Your task to perform on an android device: Open Amazon Image 0: 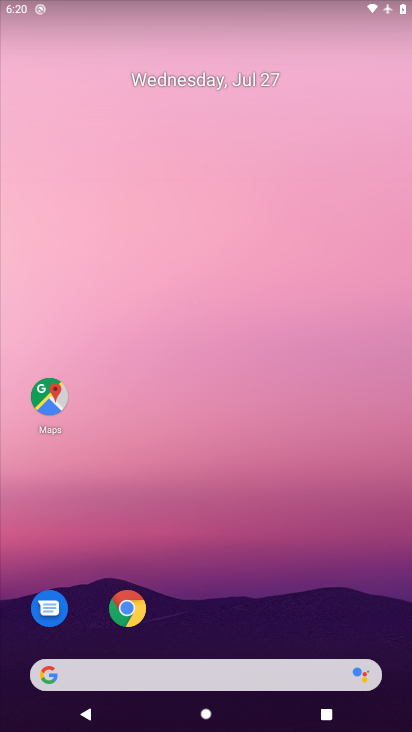
Step 0: press home button
Your task to perform on an android device: Open Amazon Image 1: 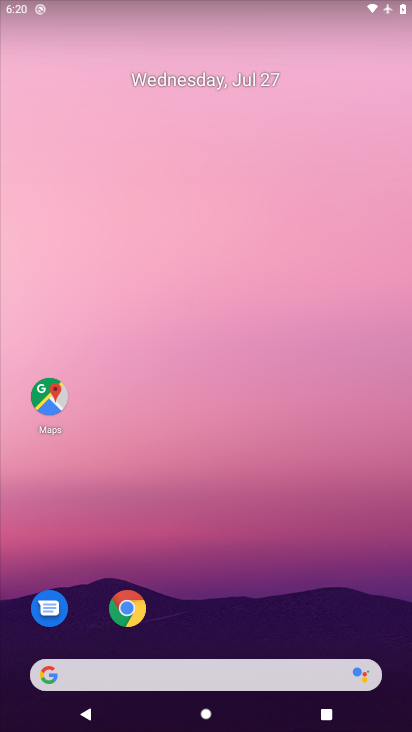
Step 1: click (53, 668)
Your task to perform on an android device: Open Amazon Image 2: 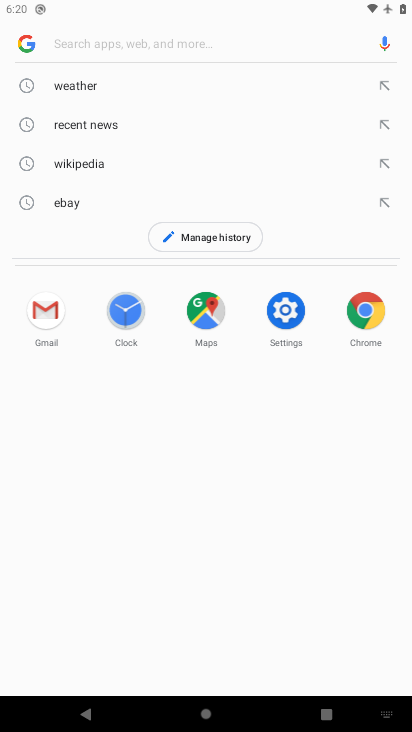
Step 2: press enter
Your task to perform on an android device: Open Amazon Image 3: 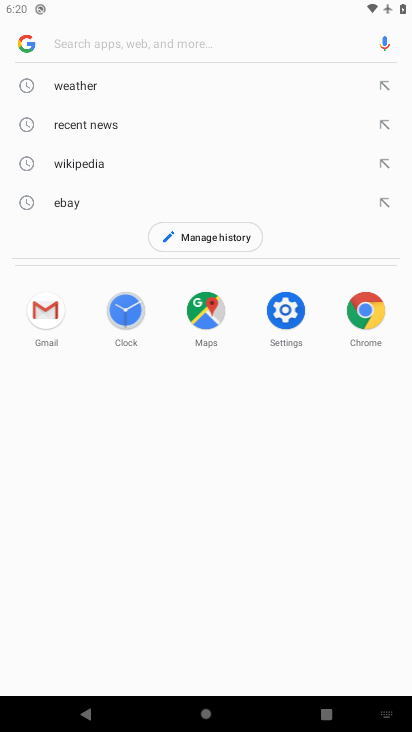
Step 3: type "Amazon"
Your task to perform on an android device: Open Amazon Image 4: 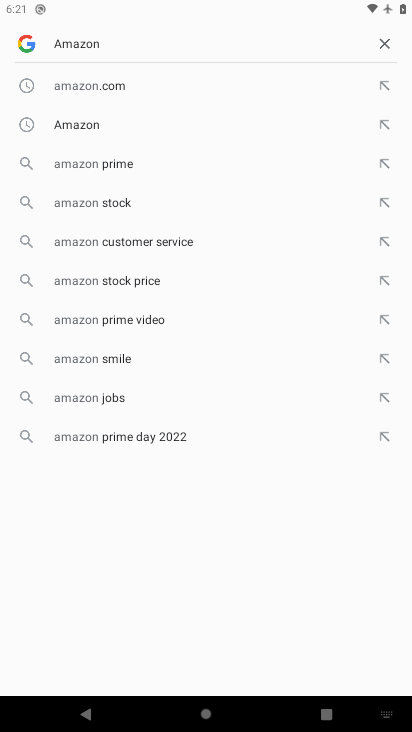
Step 4: click (70, 125)
Your task to perform on an android device: Open Amazon Image 5: 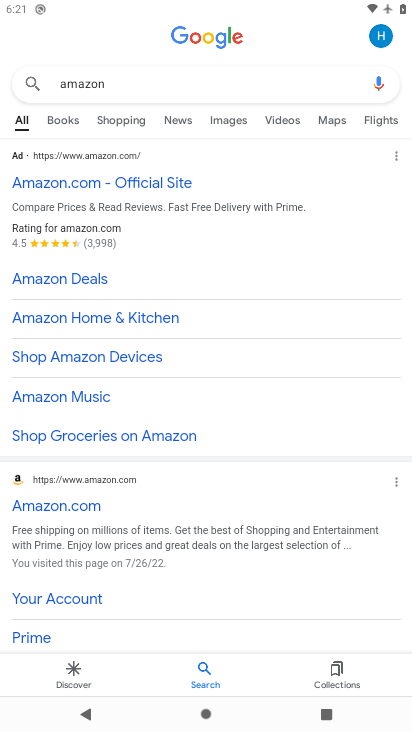
Step 5: click (91, 178)
Your task to perform on an android device: Open Amazon Image 6: 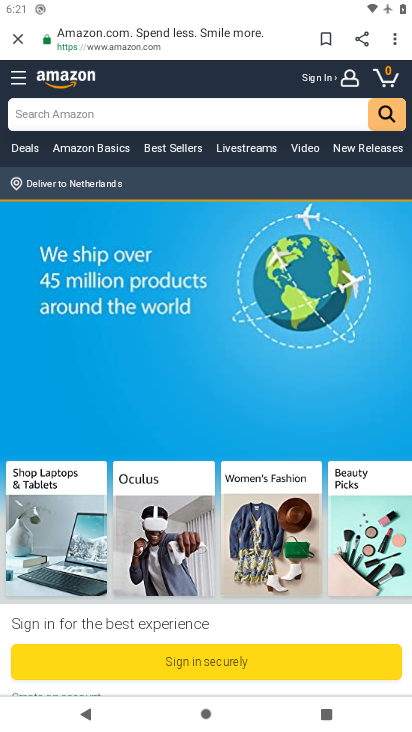
Step 6: task complete